Your task to perform on an android device: Open internet settings Image 0: 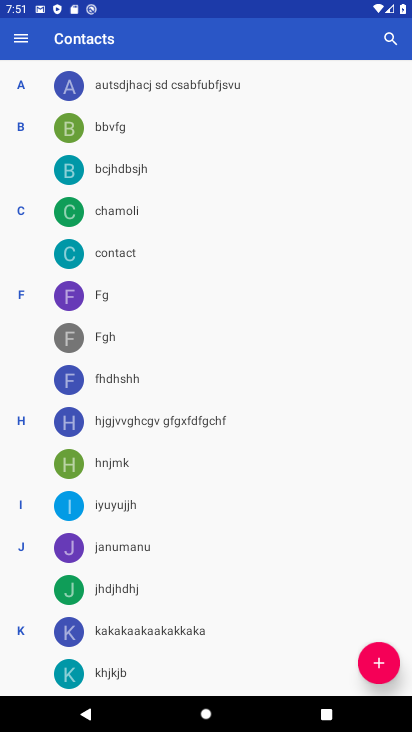
Step 0: press home button
Your task to perform on an android device: Open internet settings Image 1: 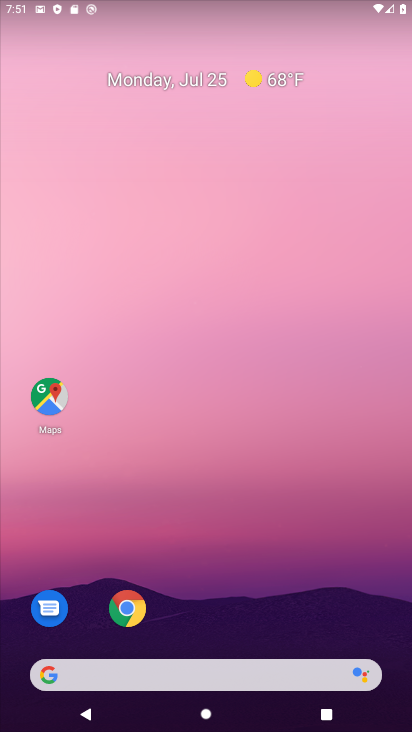
Step 1: drag from (241, 658) to (207, 28)
Your task to perform on an android device: Open internet settings Image 2: 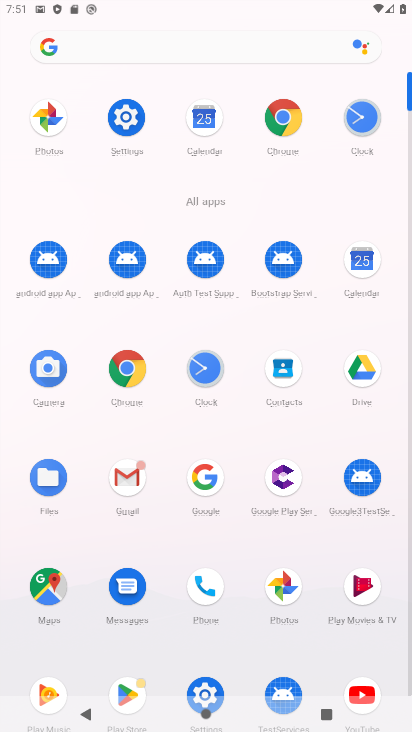
Step 2: click (127, 117)
Your task to perform on an android device: Open internet settings Image 3: 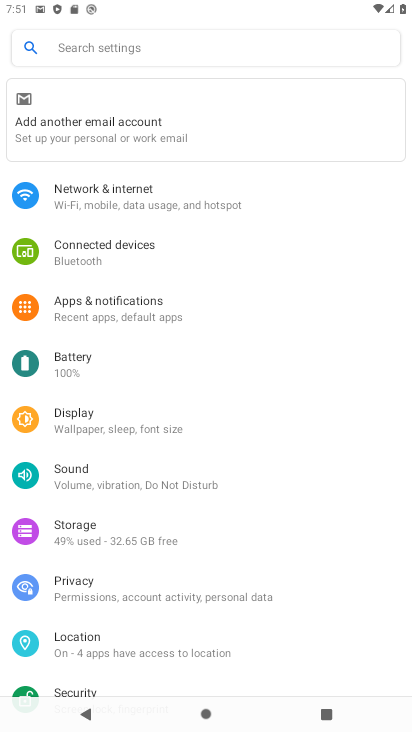
Step 3: click (128, 208)
Your task to perform on an android device: Open internet settings Image 4: 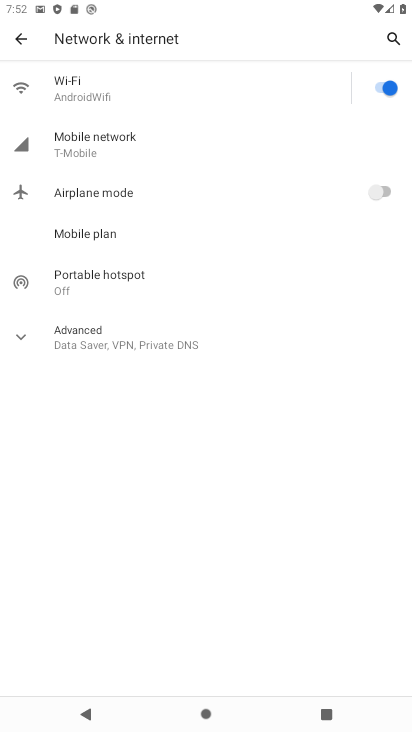
Step 4: click (15, 341)
Your task to perform on an android device: Open internet settings Image 5: 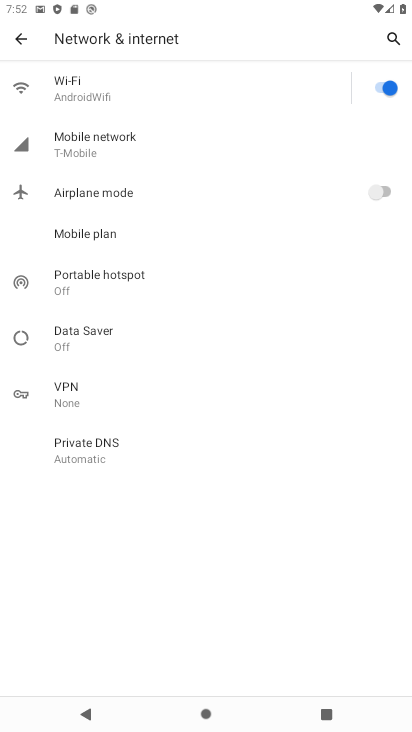
Step 5: task complete